Your task to perform on an android device: delete browsing data in the chrome app Image 0: 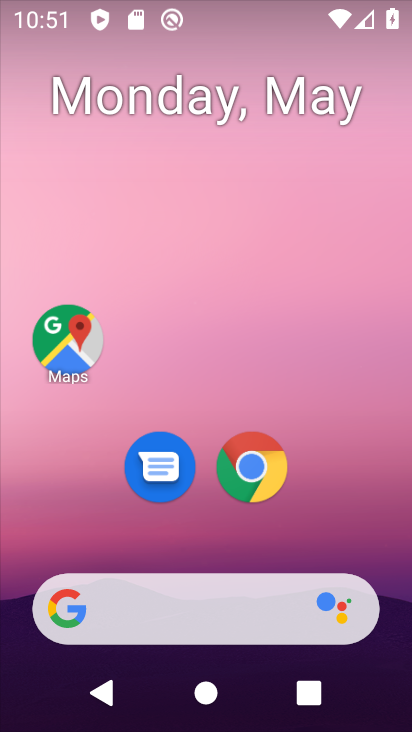
Step 0: click (296, 482)
Your task to perform on an android device: delete browsing data in the chrome app Image 1: 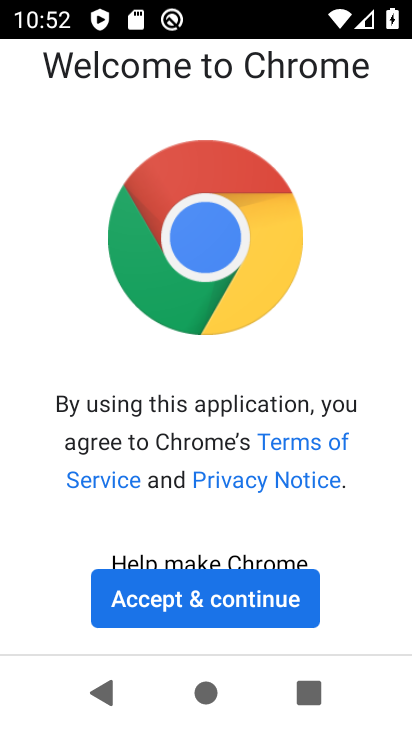
Step 1: click (251, 603)
Your task to perform on an android device: delete browsing data in the chrome app Image 2: 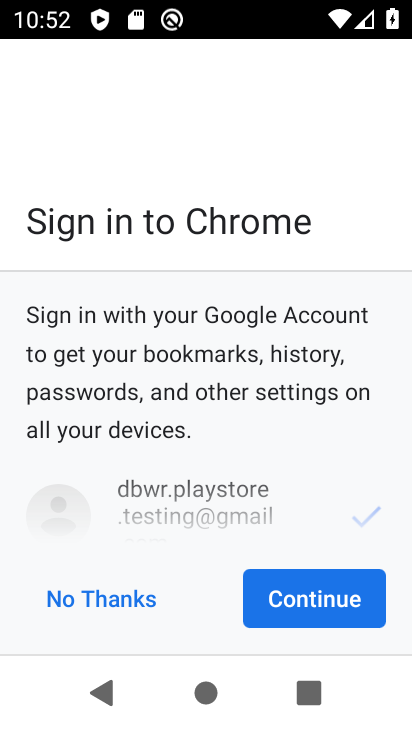
Step 2: click (268, 601)
Your task to perform on an android device: delete browsing data in the chrome app Image 3: 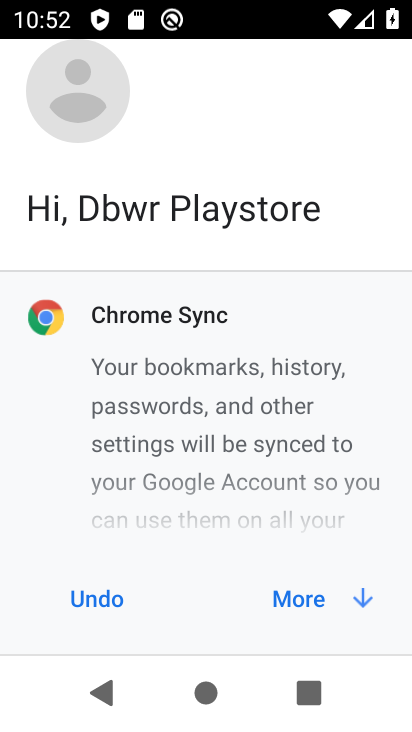
Step 3: click (268, 601)
Your task to perform on an android device: delete browsing data in the chrome app Image 4: 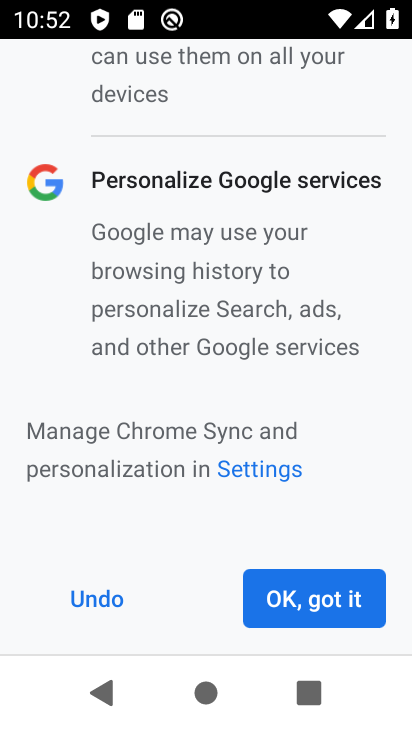
Step 4: click (268, 601)
Your task to perform on an android device: delete browsing data in the chrome app Image 5: 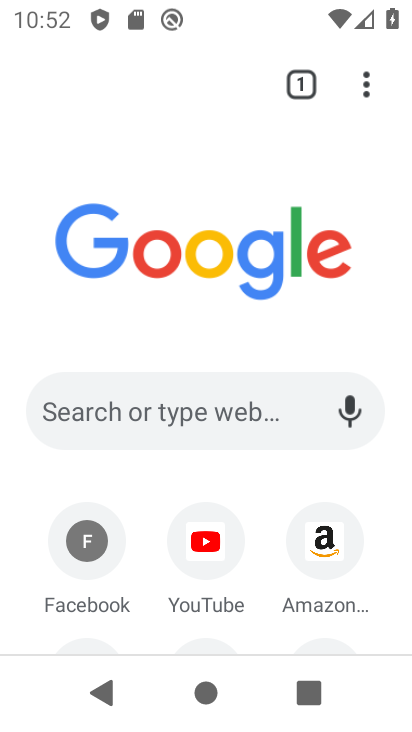
Step 5: click (361, 97)
Your task to perform on an android device: delete browsing data in the chrome app Image 6: 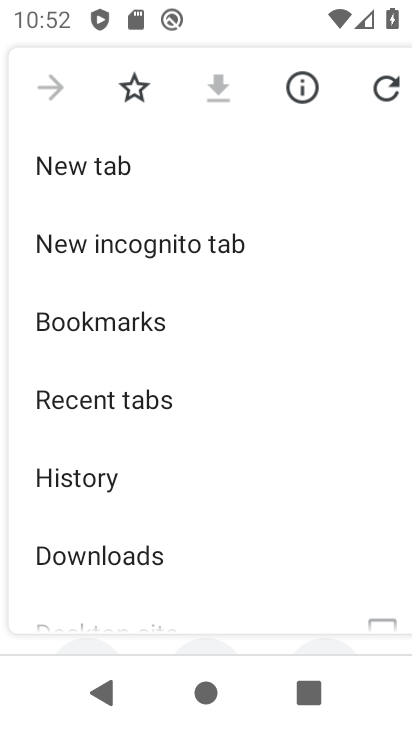
Step 6: click (231, 468)
Your task to perform on an android device: delete browsing data in the chrome app Image 7: 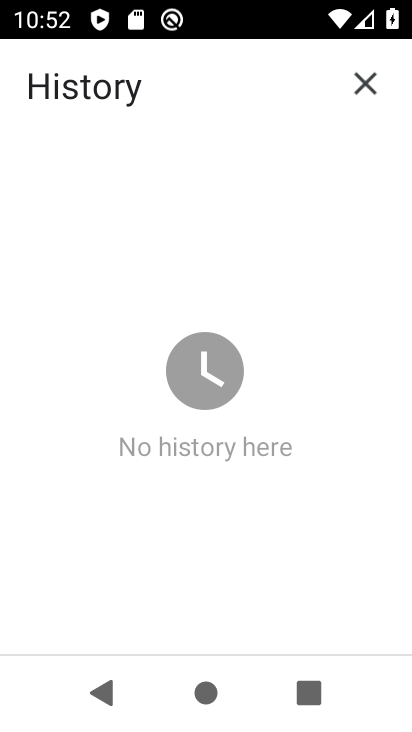
Step 7: task complete